Your task to perform on an android device: What's on Reddit today Image 0: 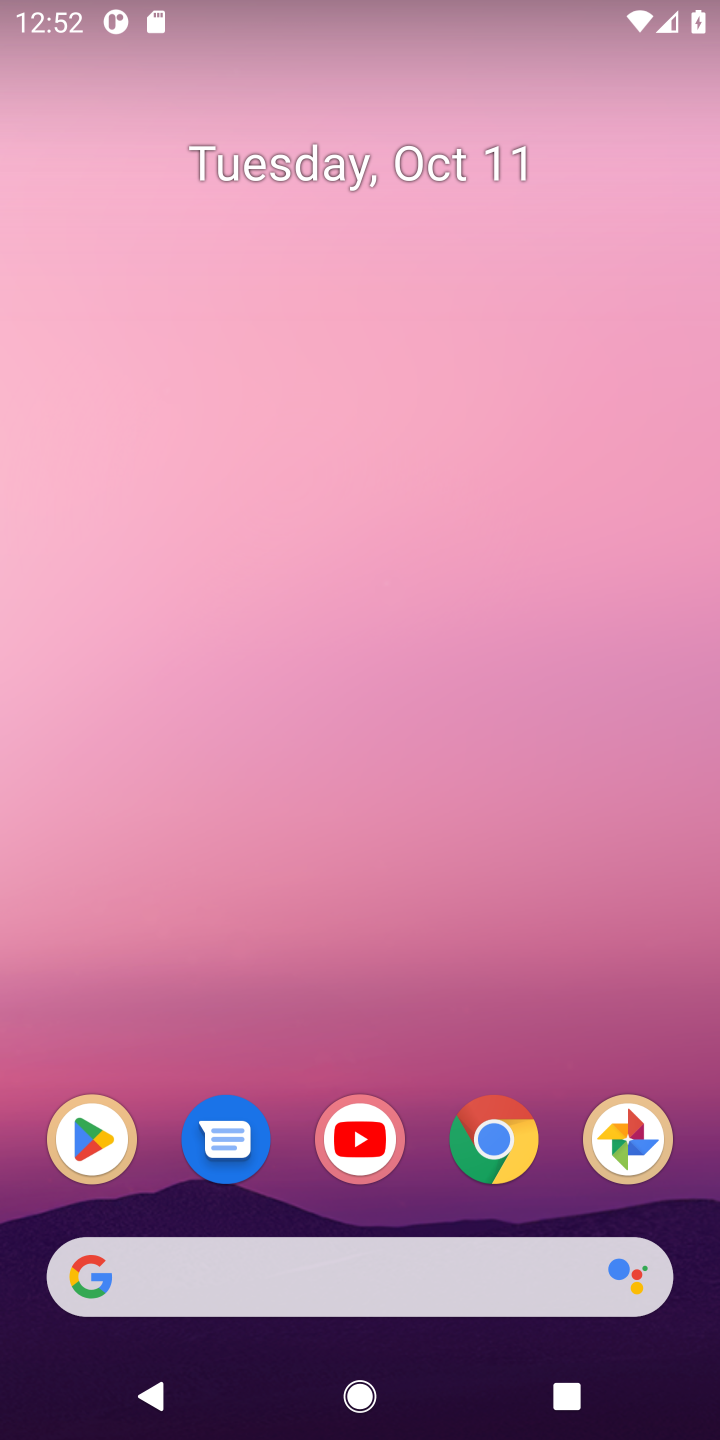
Step 0: press home button
Your task to perform on an android device: What's on Reddit today Image 1: 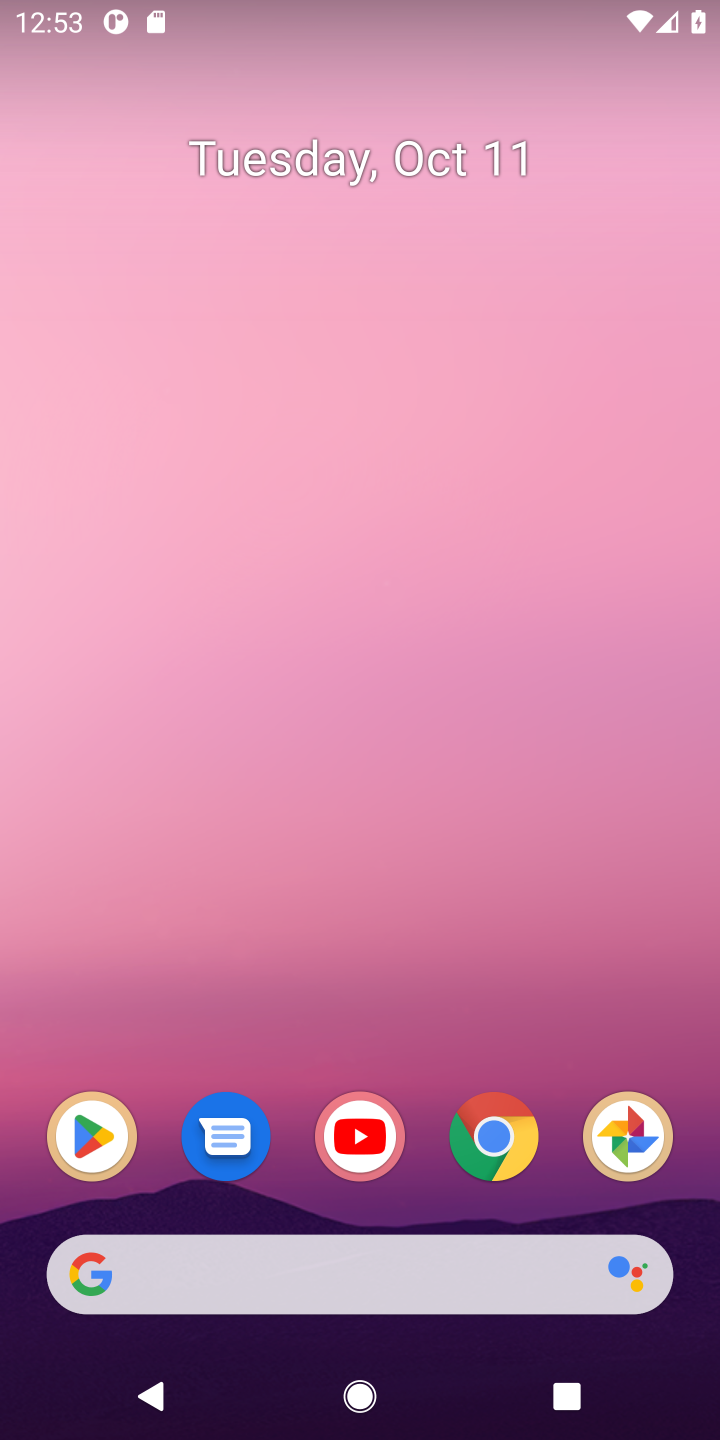
Step 1: click (140, 1270)
Your task to perform on an android device: What's on Reddit today Image 2: 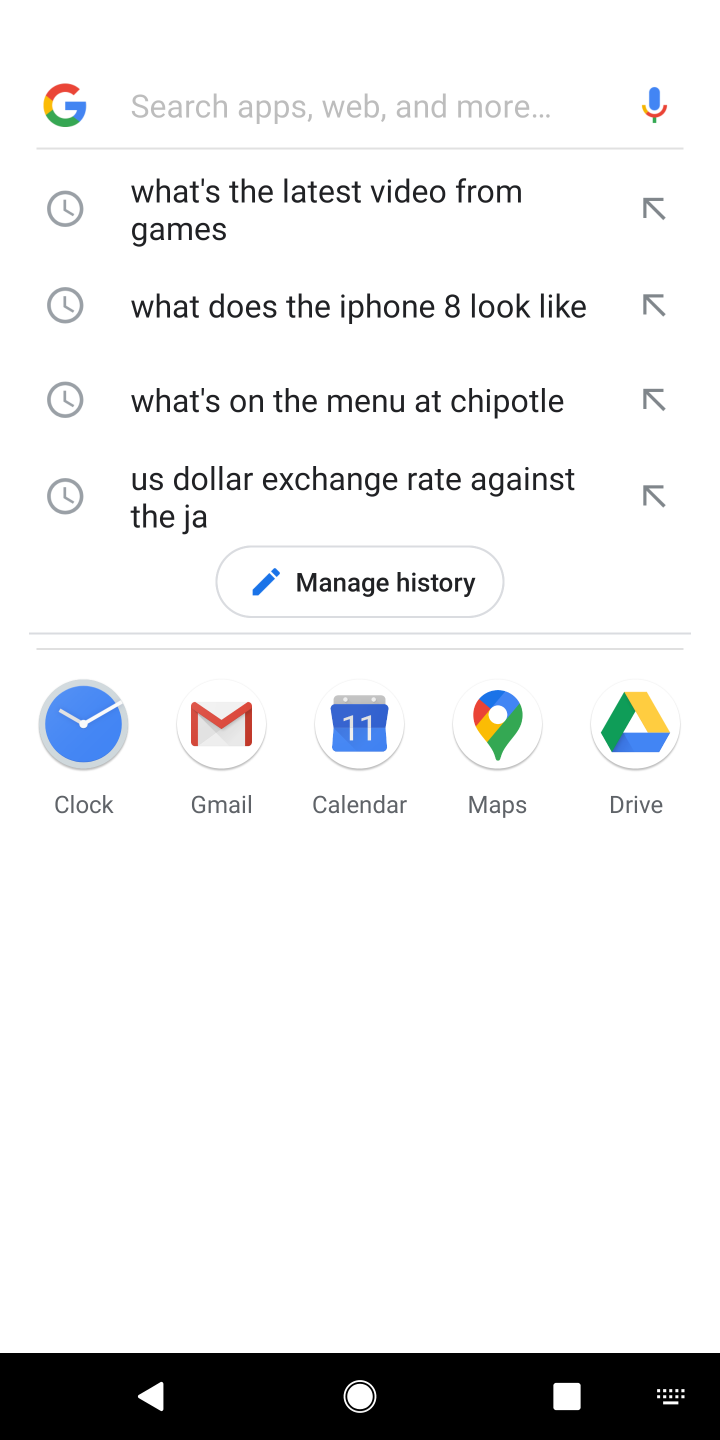
Step 2: type "What's on Reddit today"
Your task to perform on an android device: What's on Reddit today Image 3: 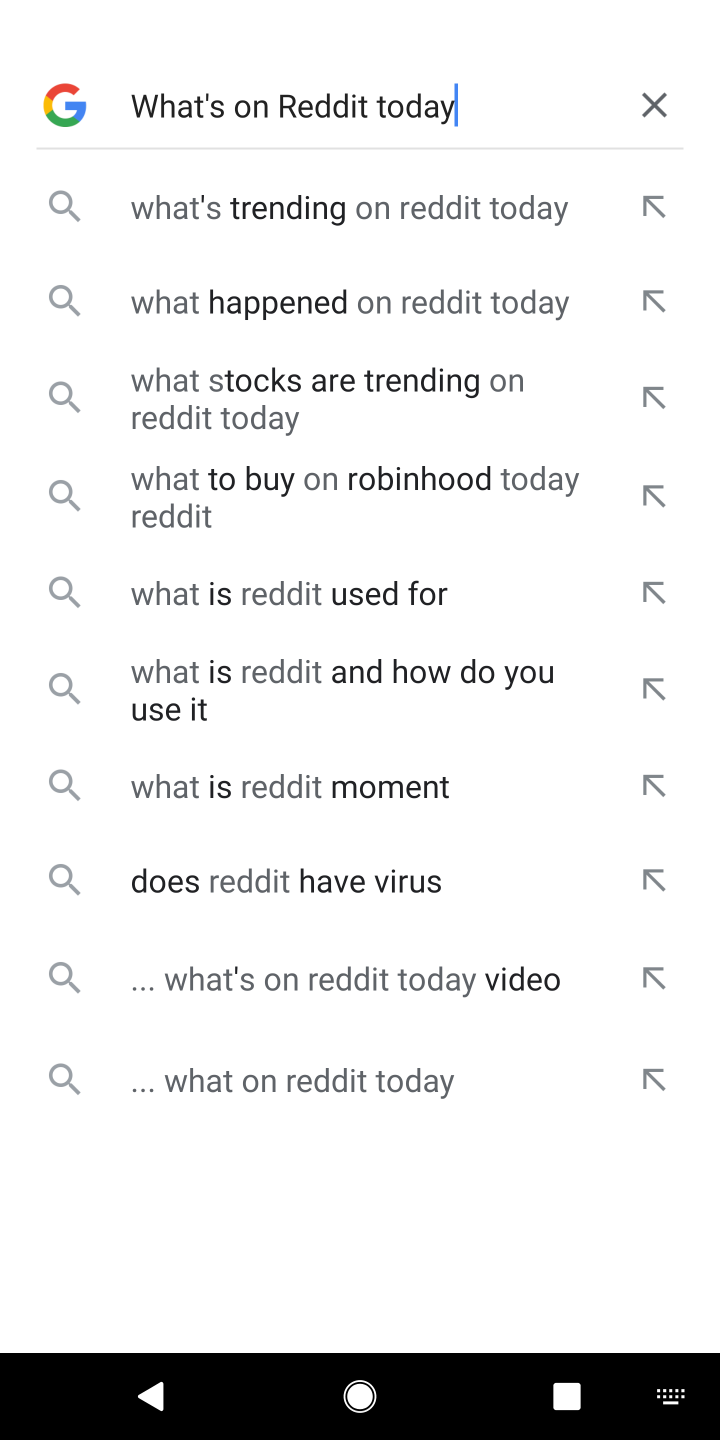
Step 3: press enter
Your task to perform on an android device: What's on Reddit today Image 4: 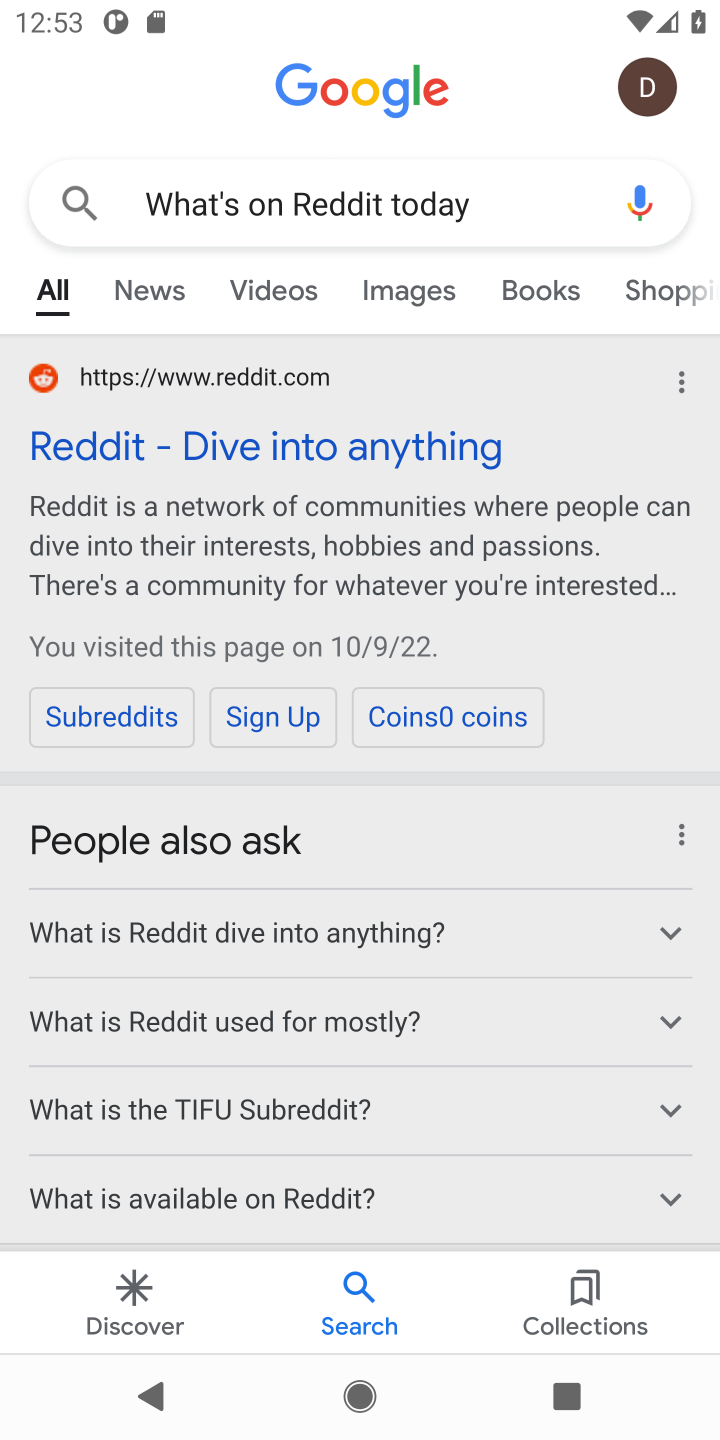
Step 4: click (387, 462)
Your task to perform on an android device: What's on Reddit today Image 5: 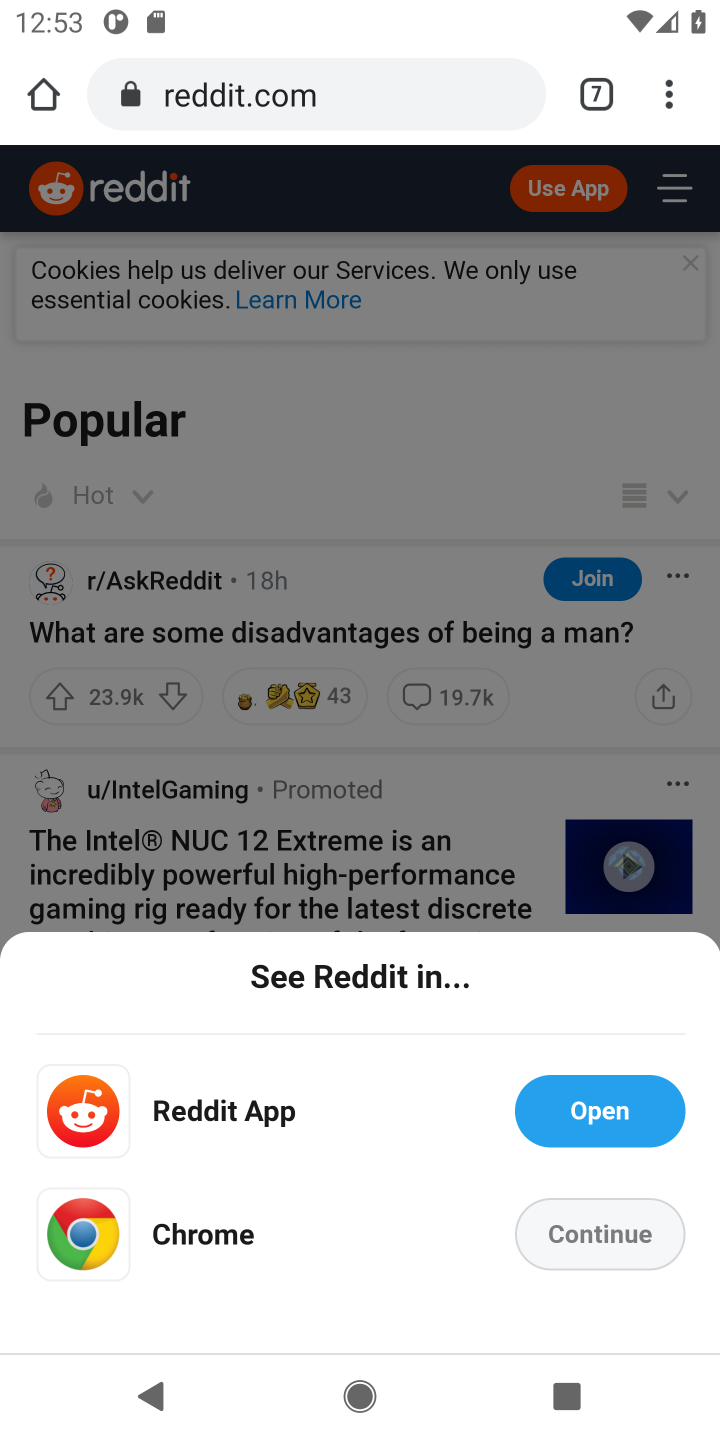
Step 5: click (616, 1241)
Your task to perform on an android device: What's on Reddit today Image 6: 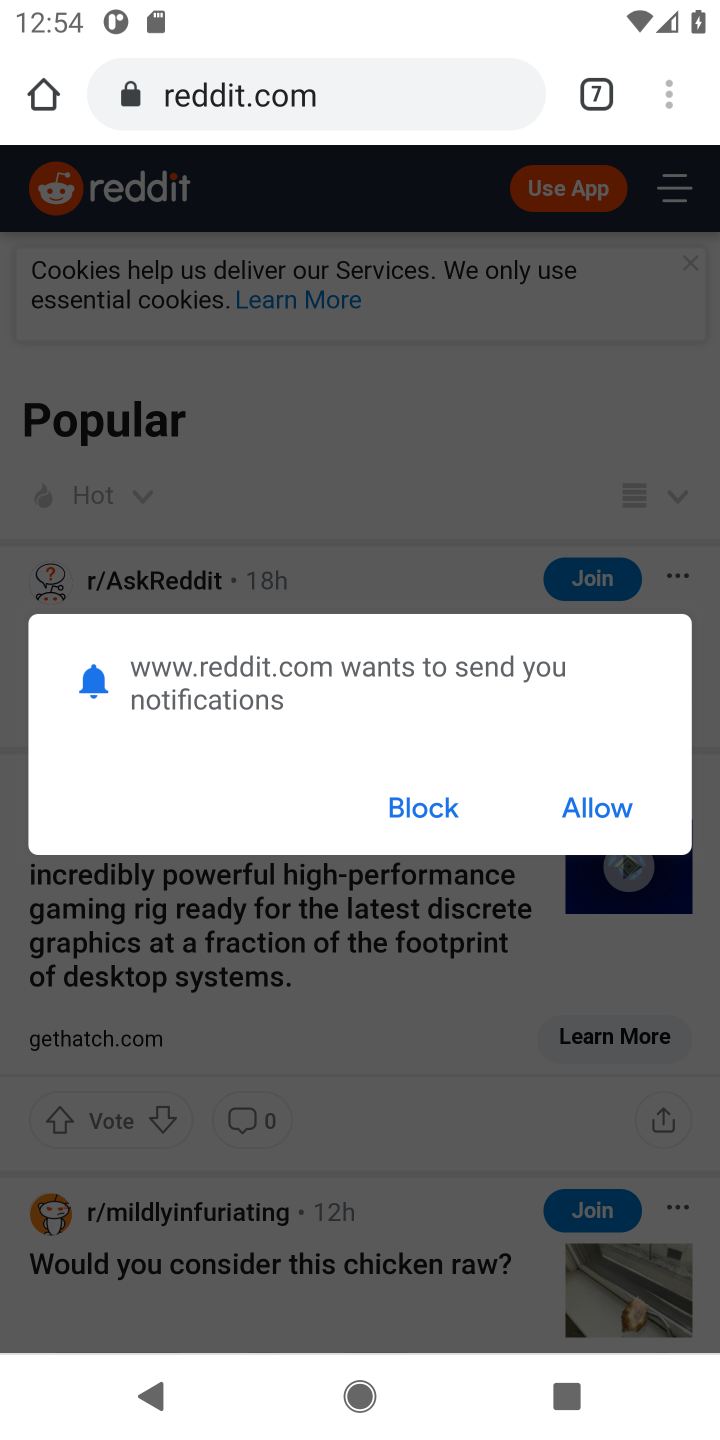
Step 6: click (423, 815)
Your task to perform on an android device: What's on Reddit today Image 7: 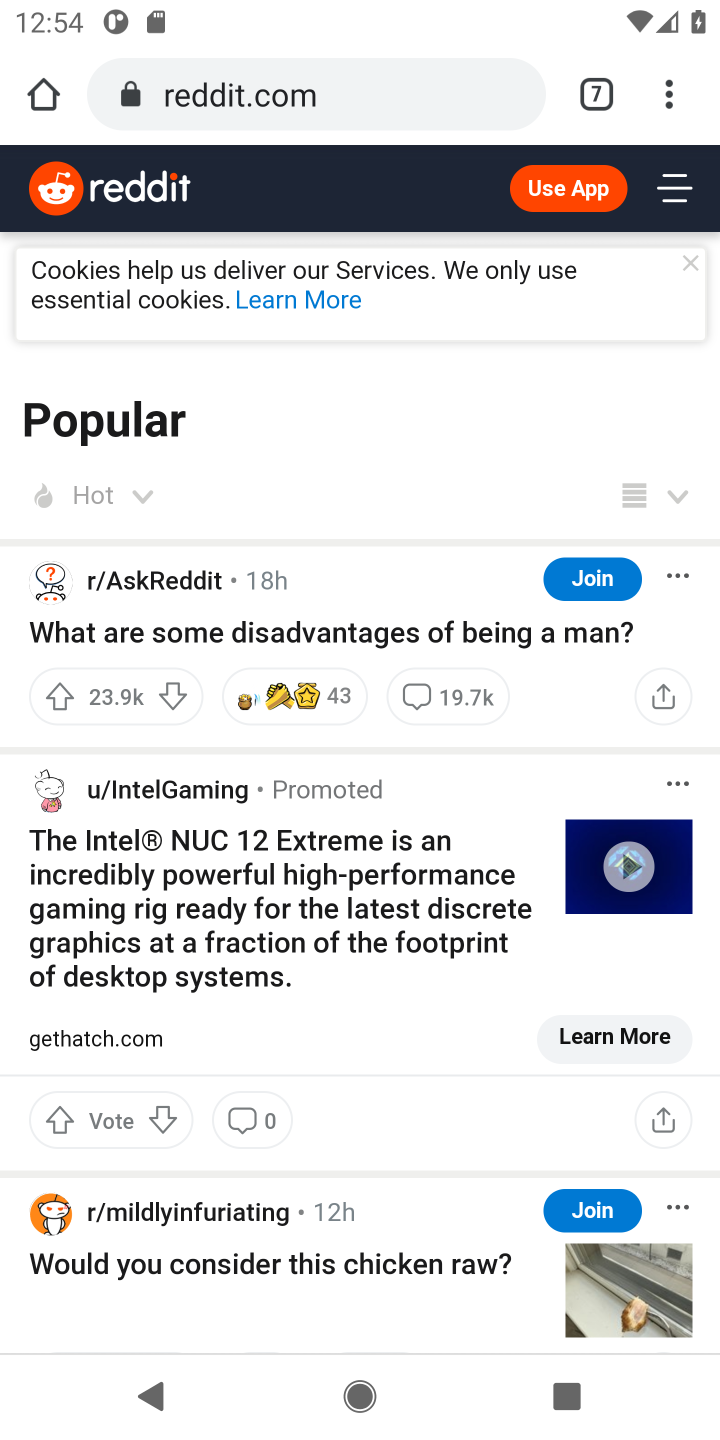
Step 7: task complete